Your task to perform on an android device: Go to sound settings Image 0: 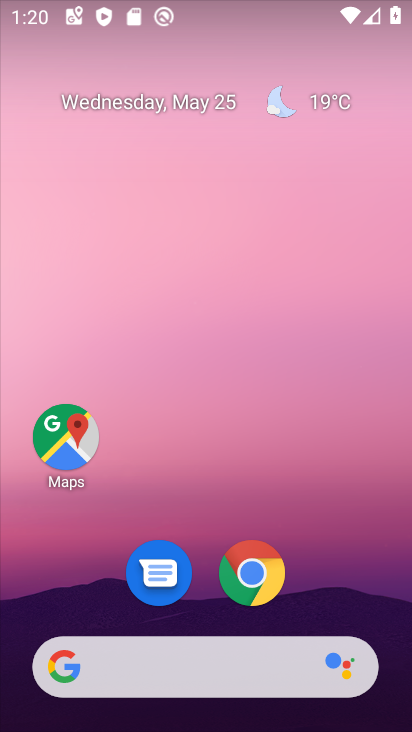
Step 0: drag from (375, 605) to (349, 36)
Your task to perform on an android device: Go to sound settings Image 1: 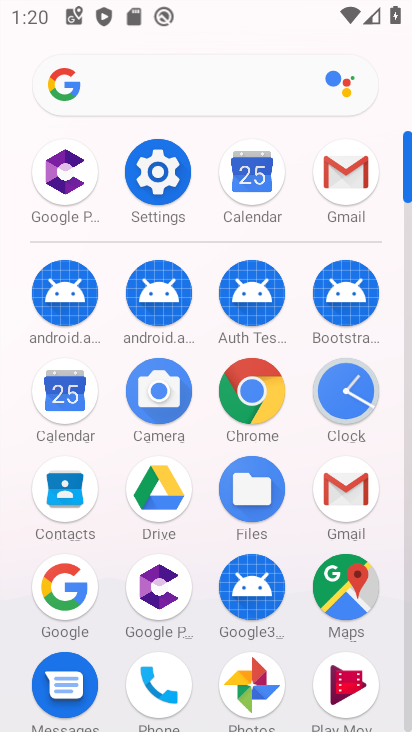
Step 1: click (407, 675)
Your task to perform on an android device: Go to sound settings Image 2: 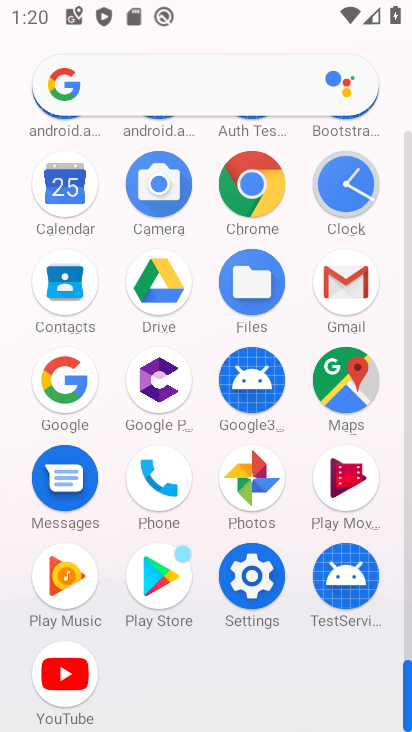
Step 2: click (250, 572)
Your task to perform on an android device: Go to sound settings Image 3: 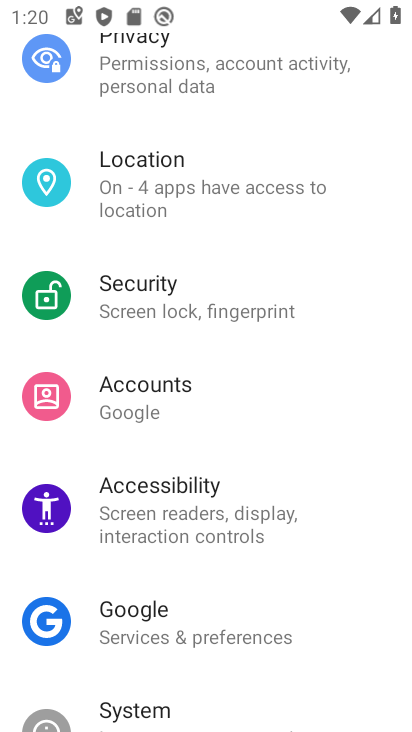
Step 3: drag from (375, 109) to (343, 468)
Your task to perform on an android device: Go to sound settings Image 4: 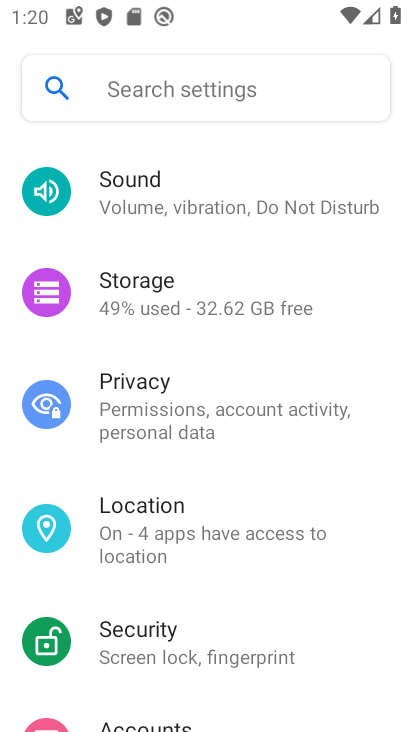
Step 4: click (110, 192)
Your task to perform on an android device: Go to sound settings Image 5: 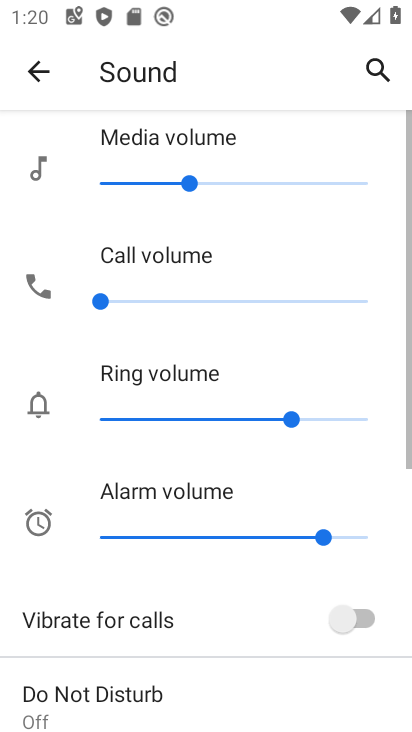
Step 5: drag from (348, 647) to (349, 192)
Your task to perform on an android device: Go to sound settings Image 6: 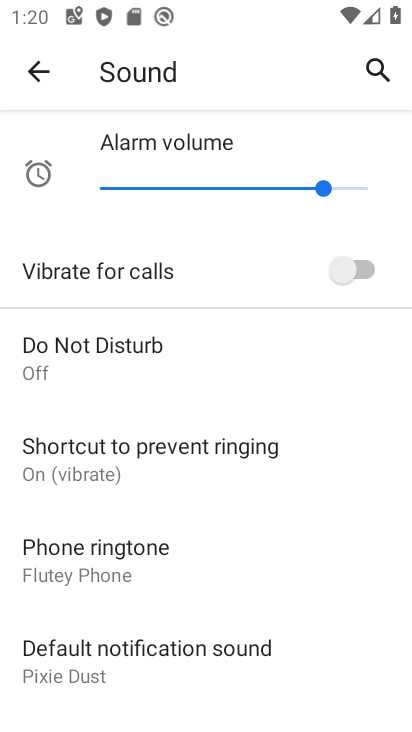
Step 6: drag from (293, 671) to (375, 211)
Your task to perform on an android device: Go to sound settings Image 7: 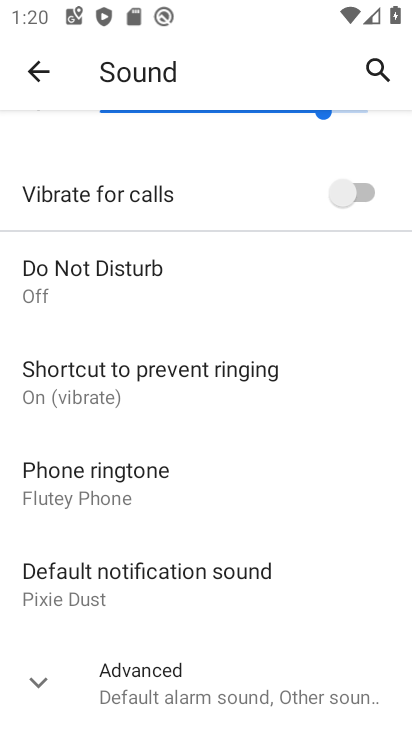
Step 7: click (28, 686)
Your task to perform on an android device: Go to sound settings Image 8: 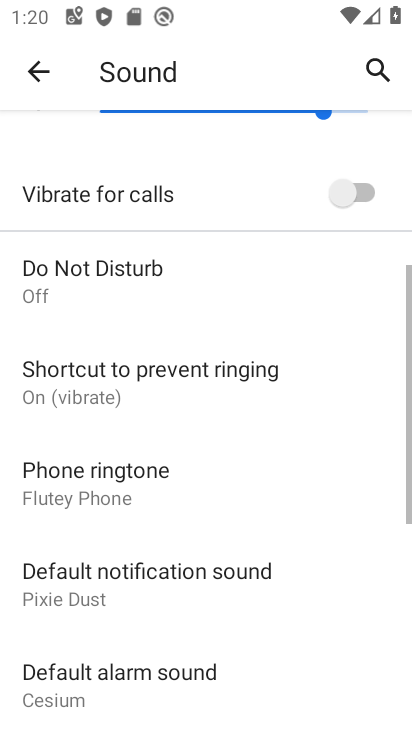
Step 8: task complete